Your task to perform on an android device: Play the last video I watched on Youtube Image 0: 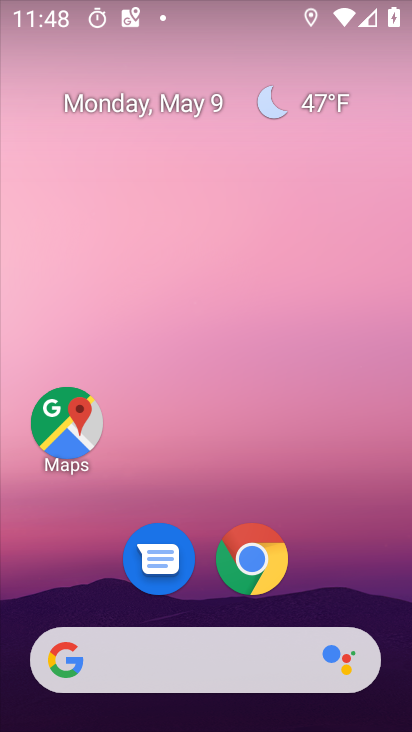
Step 0: drag from (317, 570) to (353, 103)
Your task to perform on an android device: Play the last video I watched on Youtube Image 1: 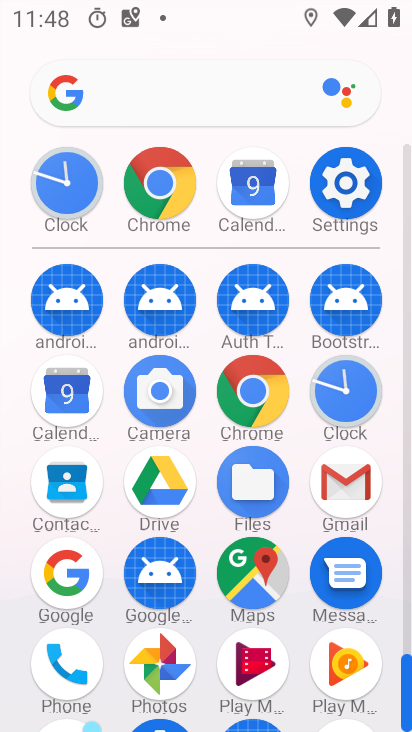
Step 1: drag from (407, 692) to (318, 453)
Your task to perform on an android device: Play the last video I watched on Youtube Image 2: 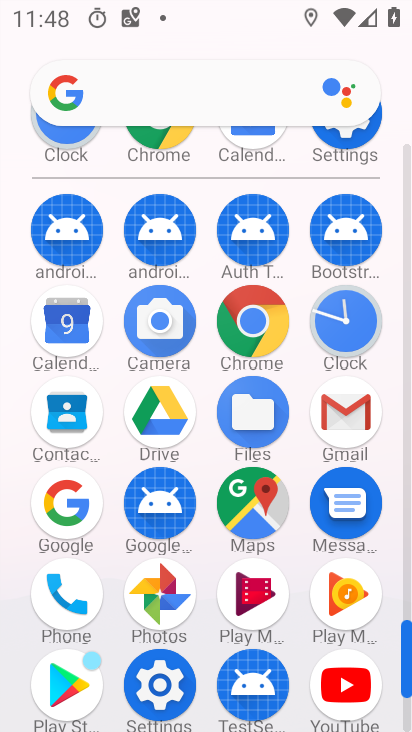
Step 2: click (332, 667)
Your task to perform on an android device: Play the last video I watched on Youtube Image 3: 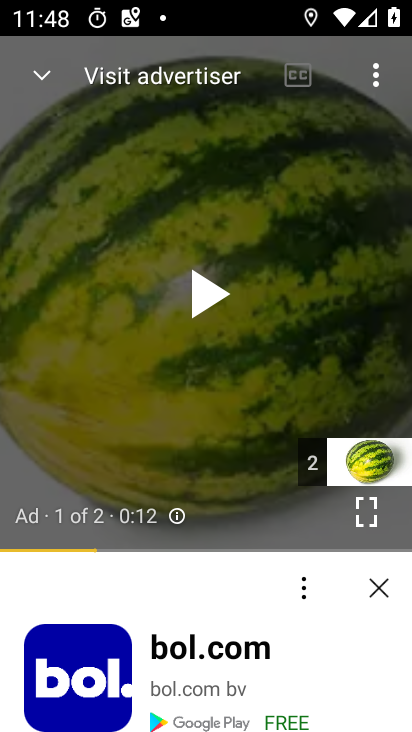
Step 3: task complete